Your task to perform on an android device: Open Android settings Image 0: 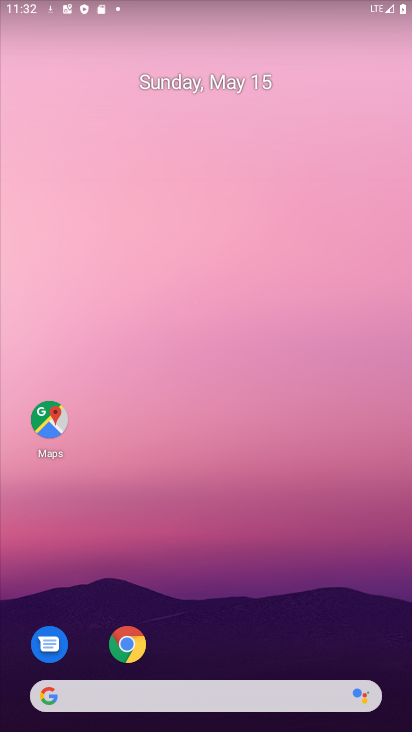
Step 0: drag from (264, 715) to (173, 351)
Your task to perform on an android device: Open Android settings Image 1: 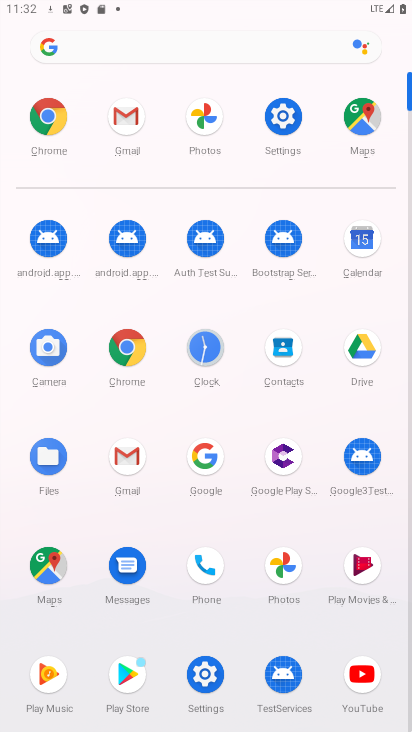
Step 1: click (289, 127)
Your task to perform on an android device: Open Android settings Image 2: 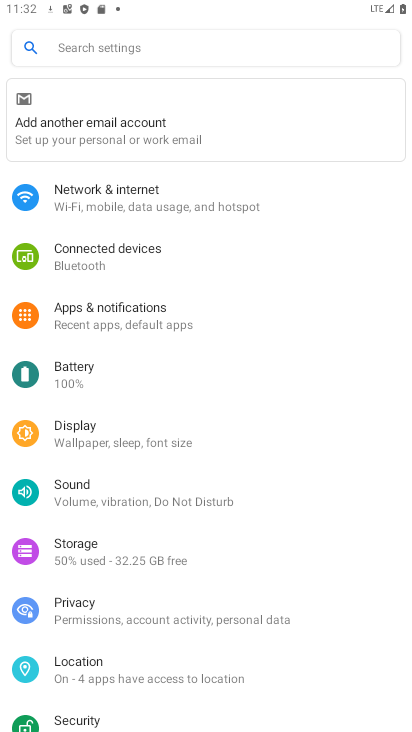
Step 2: click (138, 41)
Your task to perform on an android device: Open Android settings Image 3: 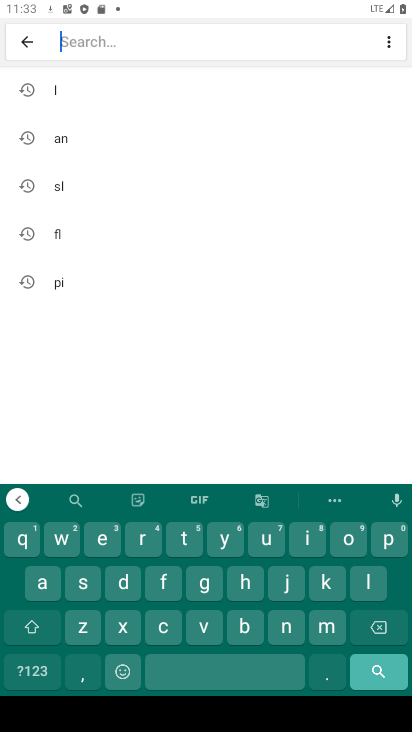
Step 3: click (38, 584)
Your task to perform on an android device: Open Android settings Image 4: 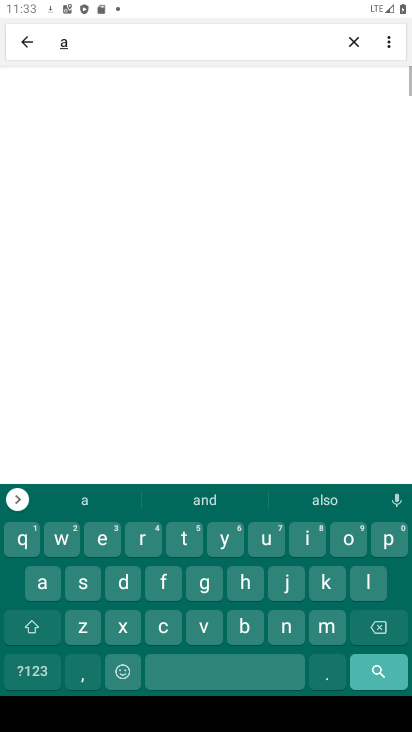
Step 4: click (290, 626)
Your task to perform on an android device: Open Android settings Image 5: 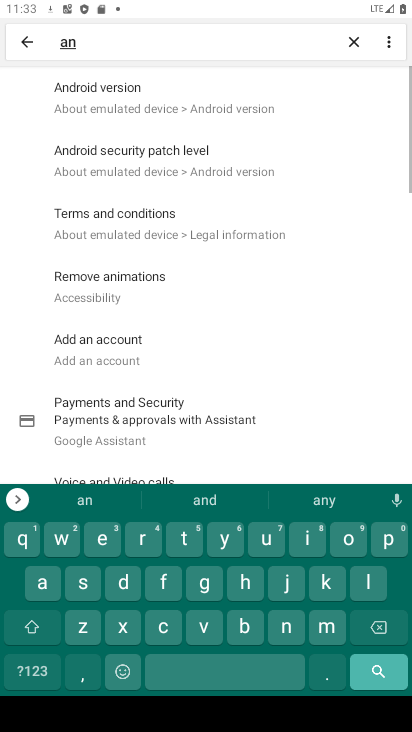
Step 5: click (150, 111)
Your task to perform on an android device: Open Android settings Image 6: 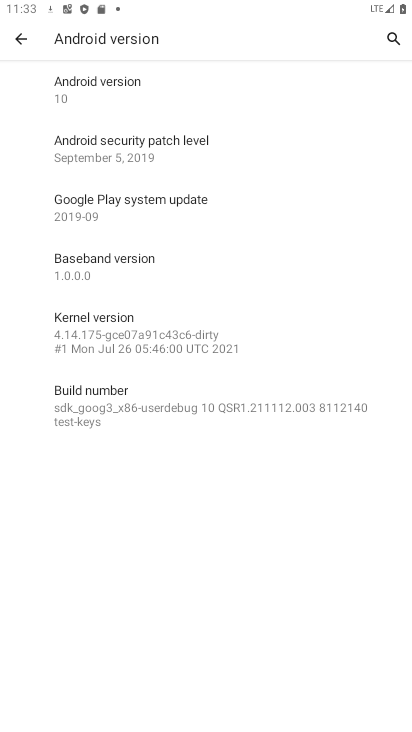
Step 6: click (127, 104)
Your task to perform on an android device: Open Android settings Image 7: 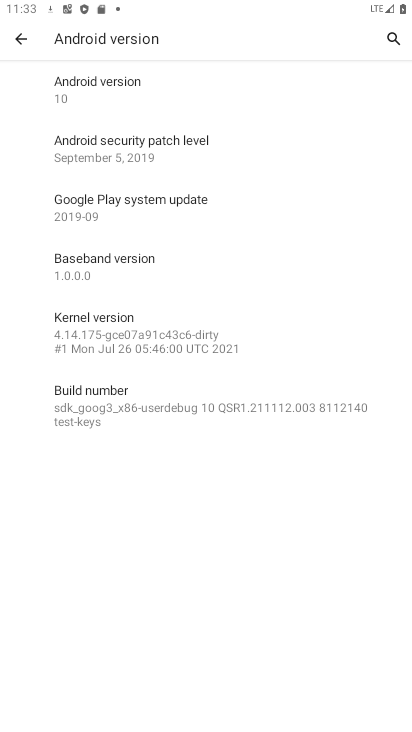
Step 7: task complete